Your task to perform on an android device: change the clock style Image 0: 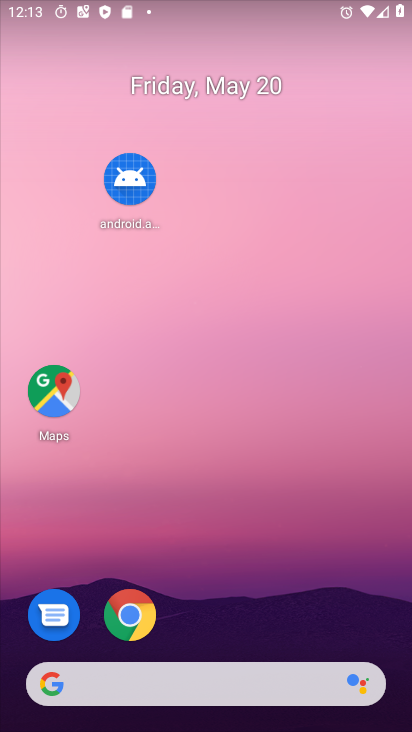
Step 0: drag from (369, 591) to (385, 6)
Your task to perform on an android device: change the clock style Image 1: 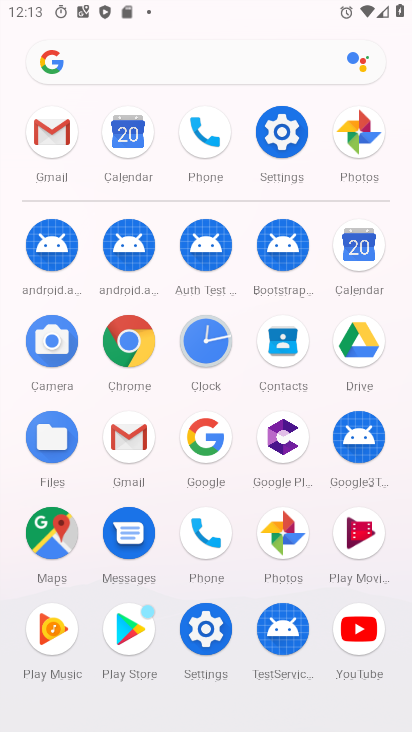
Step 1: click (200, 340)
Your task to perform on an android device: change the clock style Image 2: 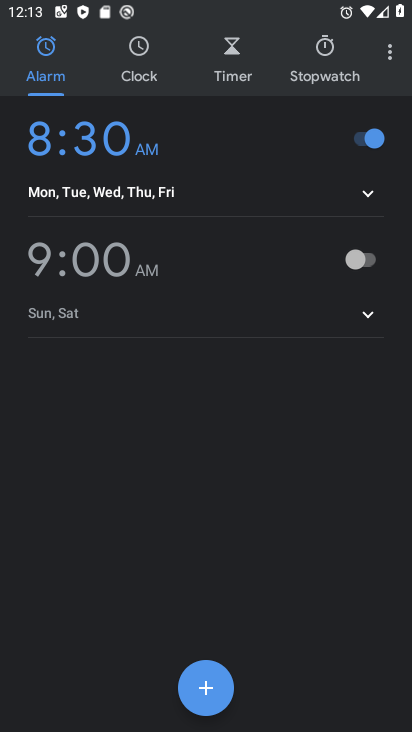
Step 2: click (397, 64)
Your task to perform on an android device: change the clock style Image 3: 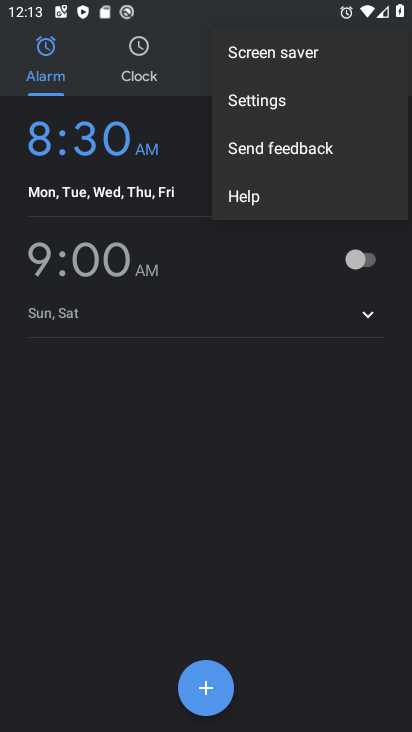
Step 3: click (273, 110)
Your task to perform on an android device: change the clock style Image 4: 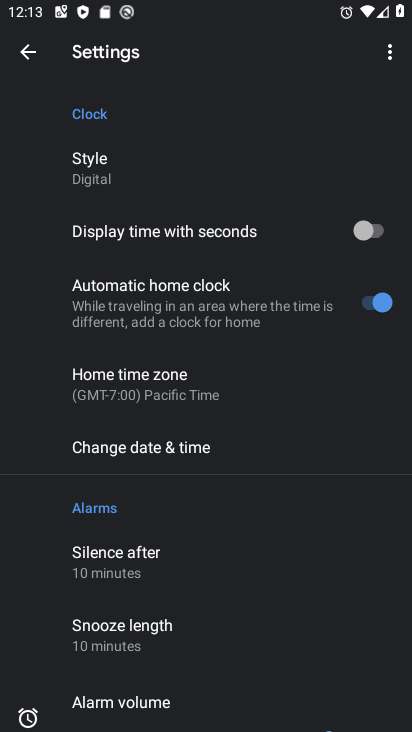
Step 4: click (275, 157)
Your task to perform on an android device: change the clock style Image 5: 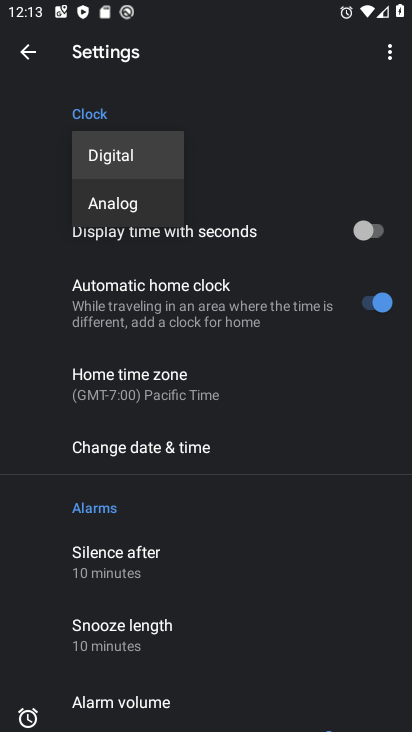
Step 5: click (104, 203)
Your task to perform on an android device: change the clock style Image 6: 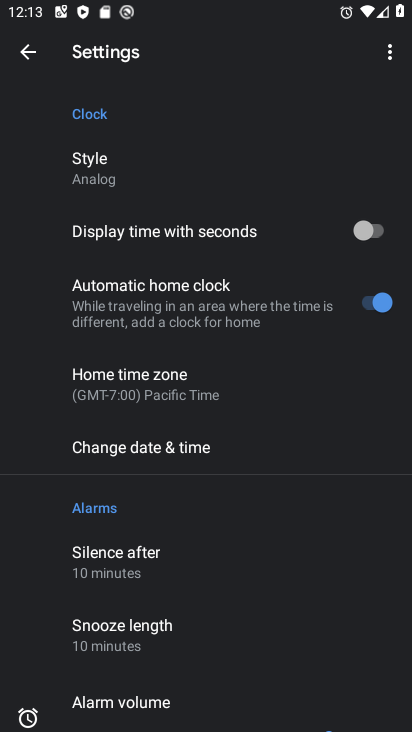
Step 6: task complete